Your task to perform on an android device: View the shopping cart on bestbuy. Add sony triple a to the cart on bestbuy Image 0: 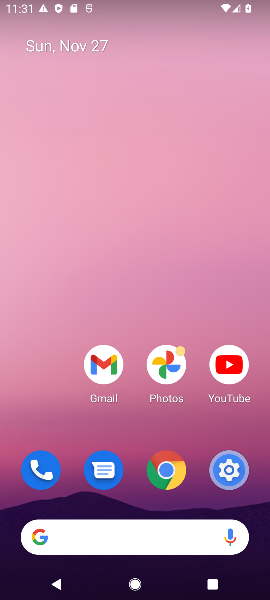
Step 0: click (124, 542)
Your task to perform on an android device: View the shopping cart on bestbuy. Add sony triple a to the cart on bestbuy Image 1: 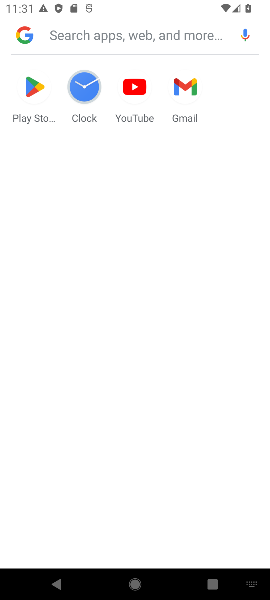
Step 1: type "bestbuy"
Your task to perform on an android device: View the shopping cart on bestbuy. Add sony triple a to the cart on bestbuy Image 2: 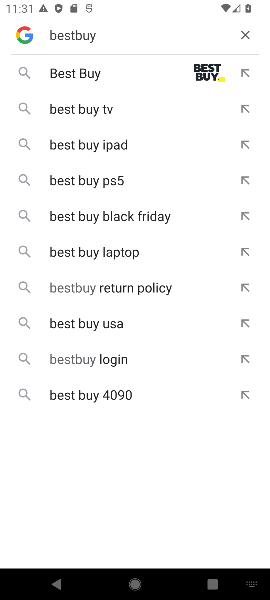
Step 2: click (102, 79)
Your task to perform on an android device: View the shopping cart on bestbuy. Add sony triple a to the cart on bestbuy Image 3: 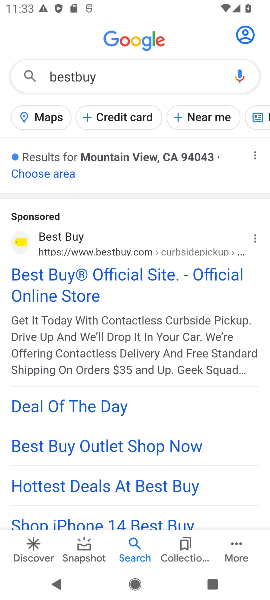
Step 3: click (114, 259)
Your task to perform on an android device: View the shopping cart on bestbuy. Add sony triple a to the cart on bestbuy Image 4: 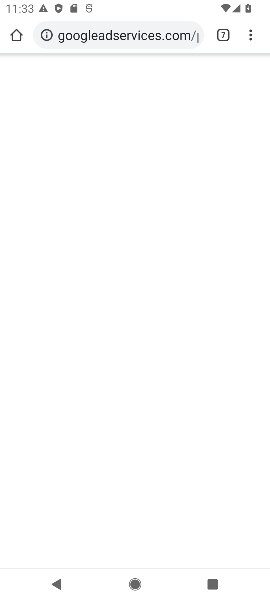
Step 4: task complete